Your task to perform on an android device: Go to settings Image 0: 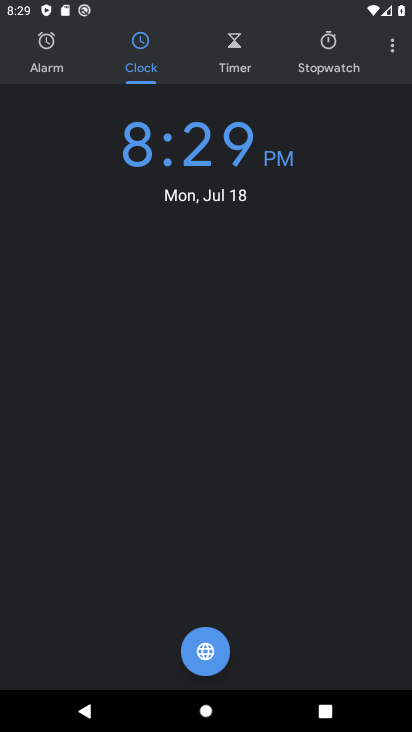
Step 0: press home button
Your task to perform on an android device: Go to settings Image 1: 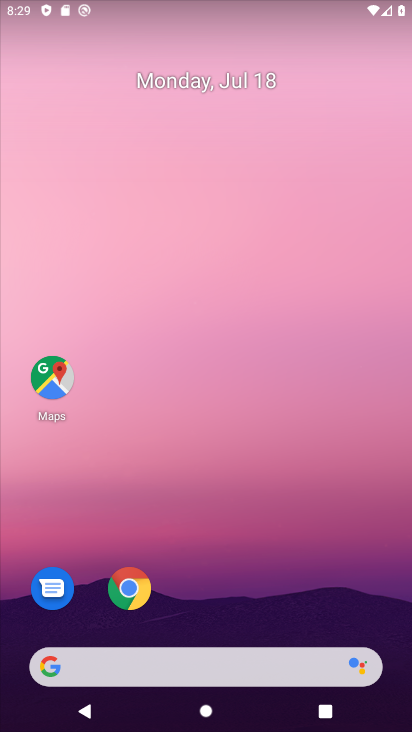
Step 1: drag from (177, 612) to (239, 178)
Your task to perform on an android device: Go to settings Image 2: 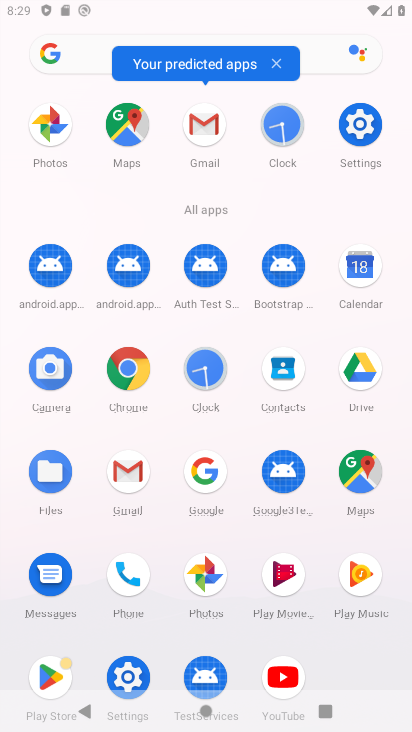
Step 2: click (363, 126)
Your task to perform on an android device: Go to settings Image 3: 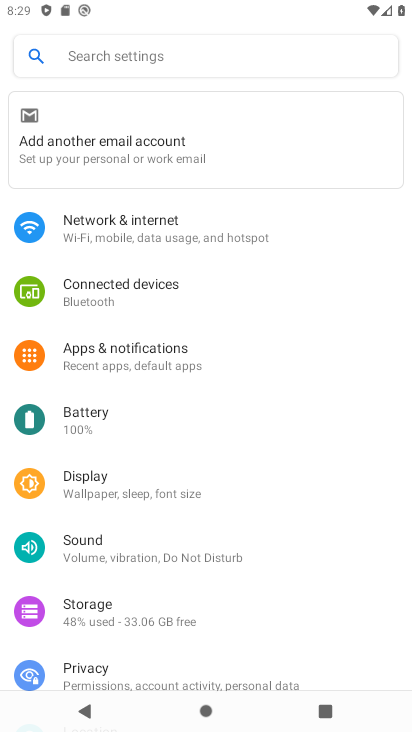
Step 3: task complete